Your task to perform on an android device: Show me popular videos on Youtube Image 0: 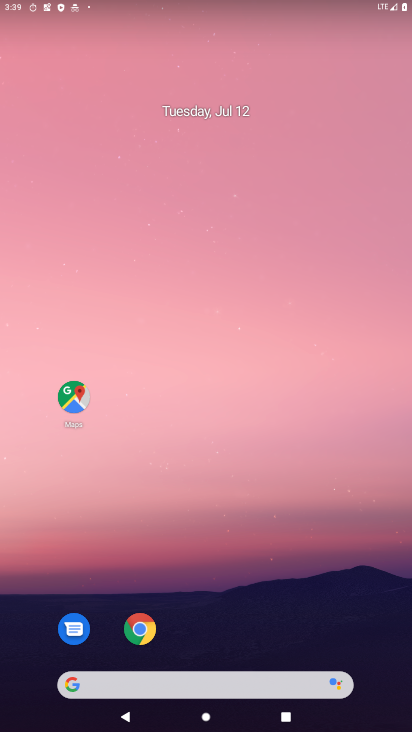
Step 0: drag from (302, 507) to (353, 134)
Your task to perform on an android device: Show me popular videos on Youtube Image 1: 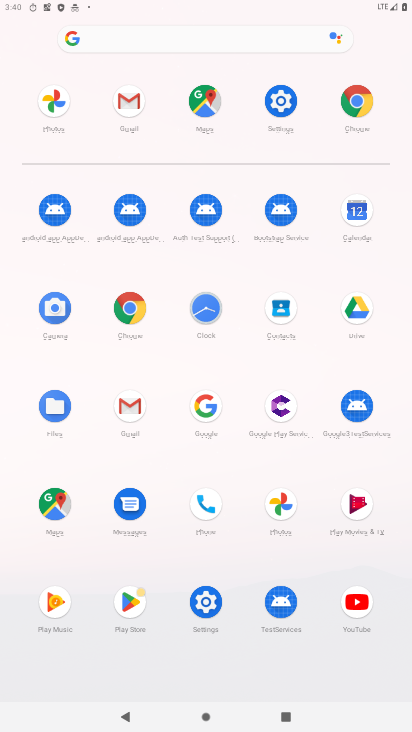
Step 1: click (368, 606)
Your task to perform on an android device: Show me popular videos on Youtube Image 2: 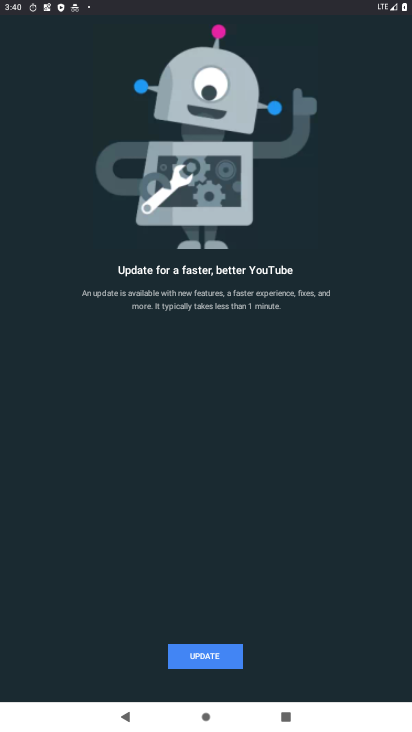
Step 2: click (217, 648)
Your task to perform on an android device: Show me popular videos on Youtube Image 3: 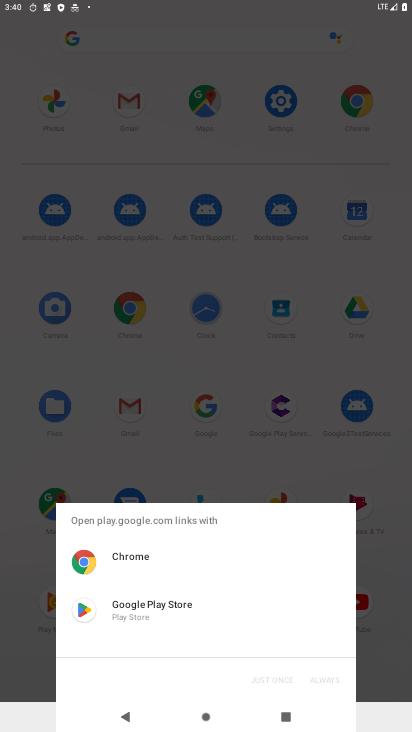
Step 3: click (168, 609)
Your task to perform on an android device: Show me popular videos on Youtube Image 4: 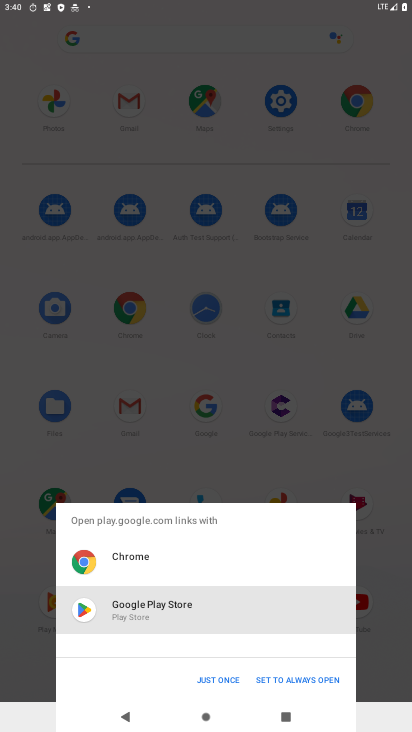
Step 4: click (221, 670)
Your task to perform on an android device: Show me popular videos on Youtube Image 5: 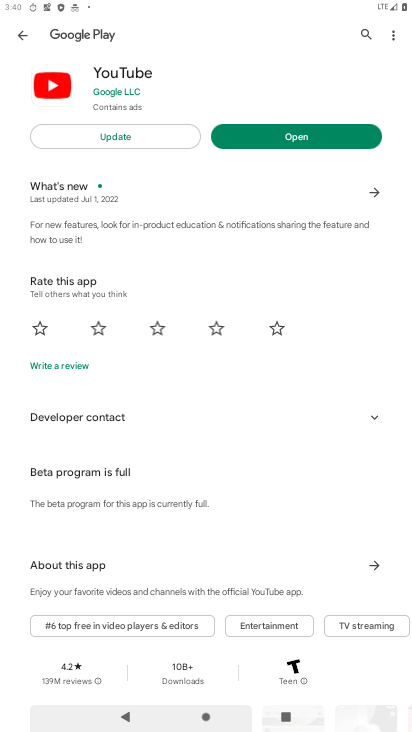
Step 5: click (157, 145)
Your task to perform on an android device: Show me popular videos on Youtube Image 6: 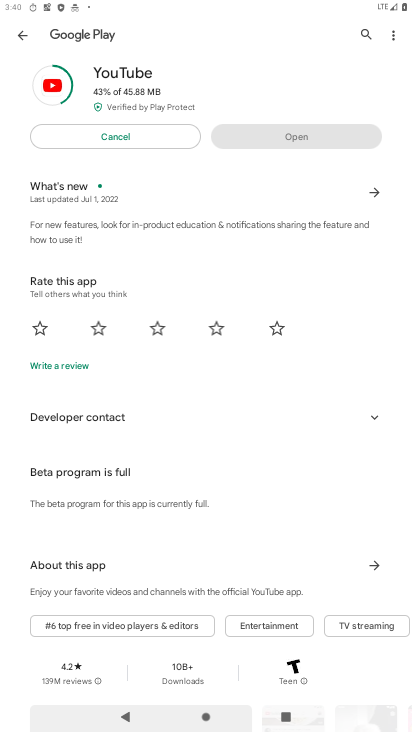
Step 6: task complete